Your task to perform on an android device: see creations saved in the google photos Image 0: 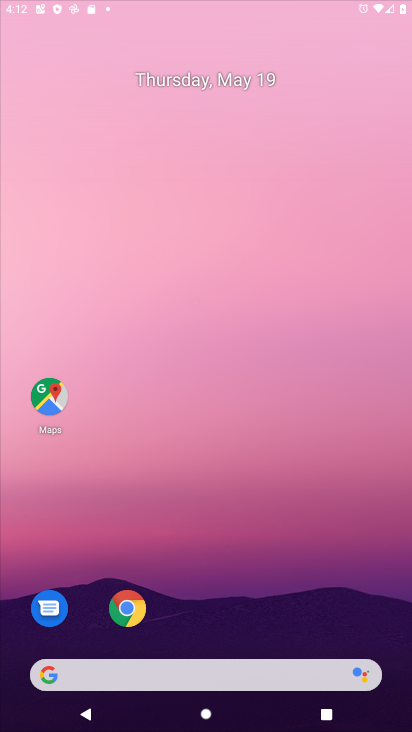
Step 0: drag from (292, 603) to (320, 134)
Your task to perform on an android device: see creations saved in the google photos Image 1: 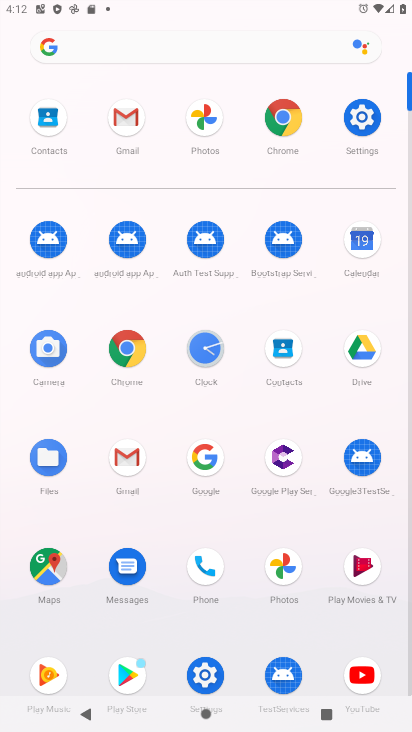
Step 1: click (190, 130)
Your task to perform on an android device: see creations saved in the google photos Image 2: 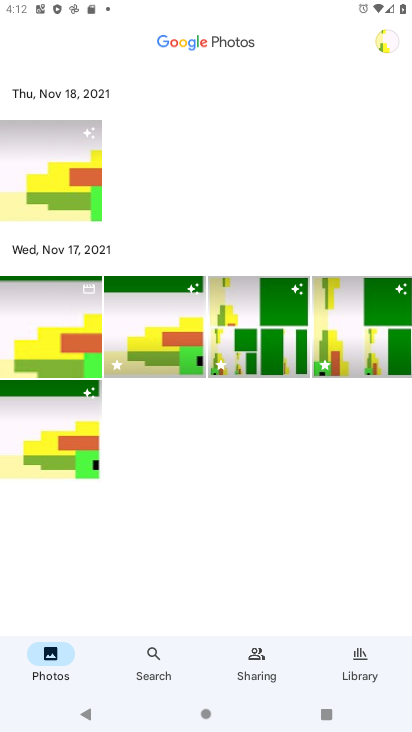
Step 2: click (366, 666)
Your task to perform on an android device: see creations saved in the google photos Image 3: 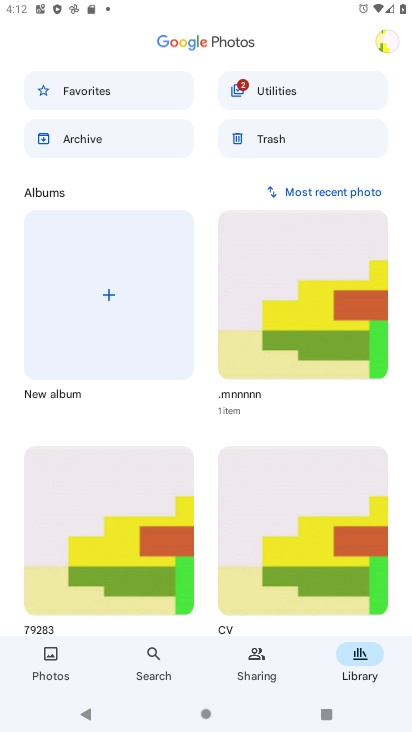
Step 3: click (132, 145)
Your task to perform on an android device: see creations saved in the google photos Image 4: 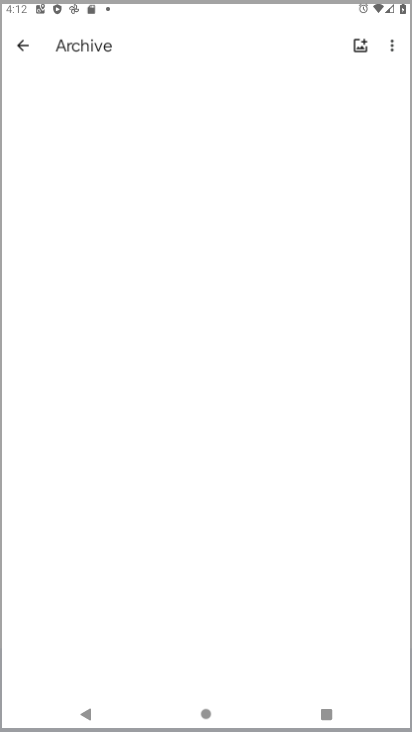
Step 4: task complete